Your task to perform on an android device: turn off notifications in google photos Image 0: 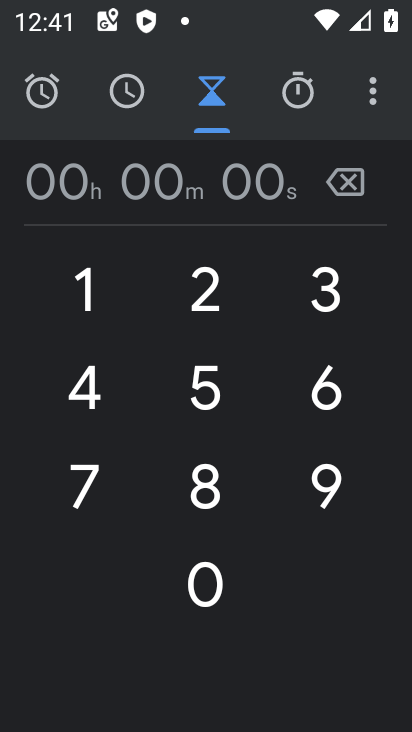
Step 0: press home button
Your task to perform on an android device: turn off notifications in google photos Image 1: 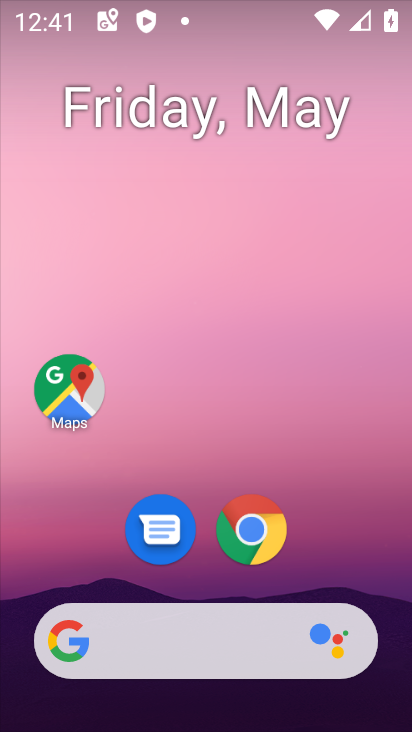
Step 1: drag from (350, 564) to (299, 145)
Your task to perform on an android device: turn off notifications in google photos Image 2: 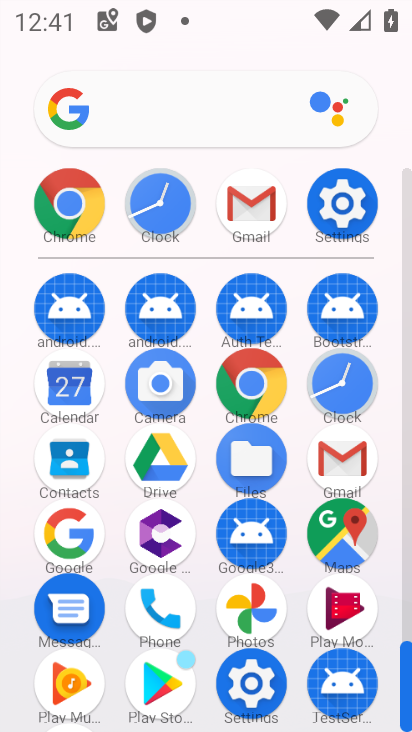
Step 2: click (266, 604)
Your task to perform on an android device: turn off notifications in google photos Image 3: 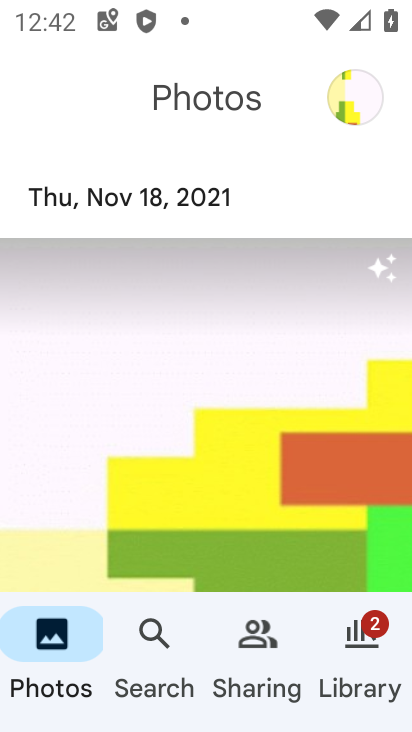
Step 3: task complete